Your task to perform on an android device: delete the emails in spam in the gmail app Image 0: 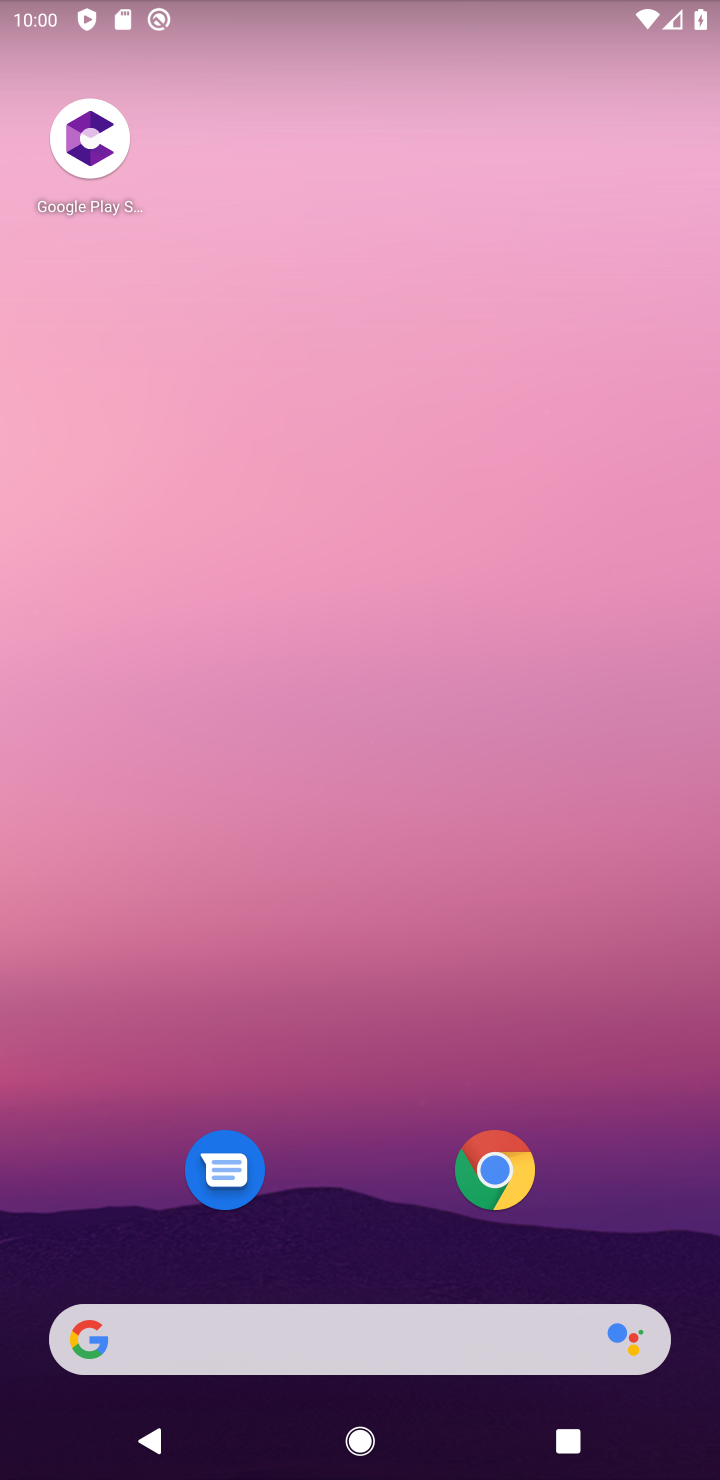
Step 0: press home button
Your task to perform on an android device: delete the emails in spam in the gmail app Image 1: 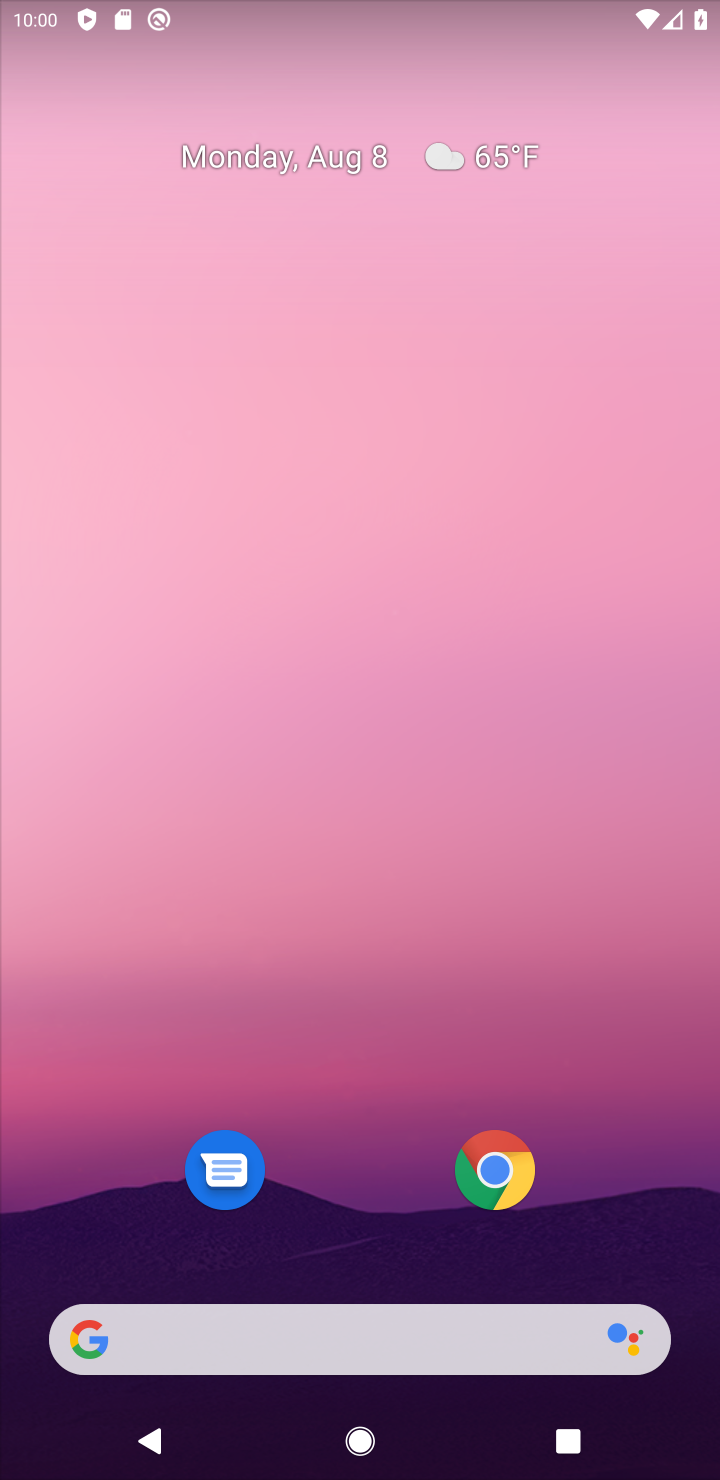
Step 1: drag from (397, 925) to (427, 97)
Your task to perform on an android device: delete the emails in spam in the gmail app Image 2: 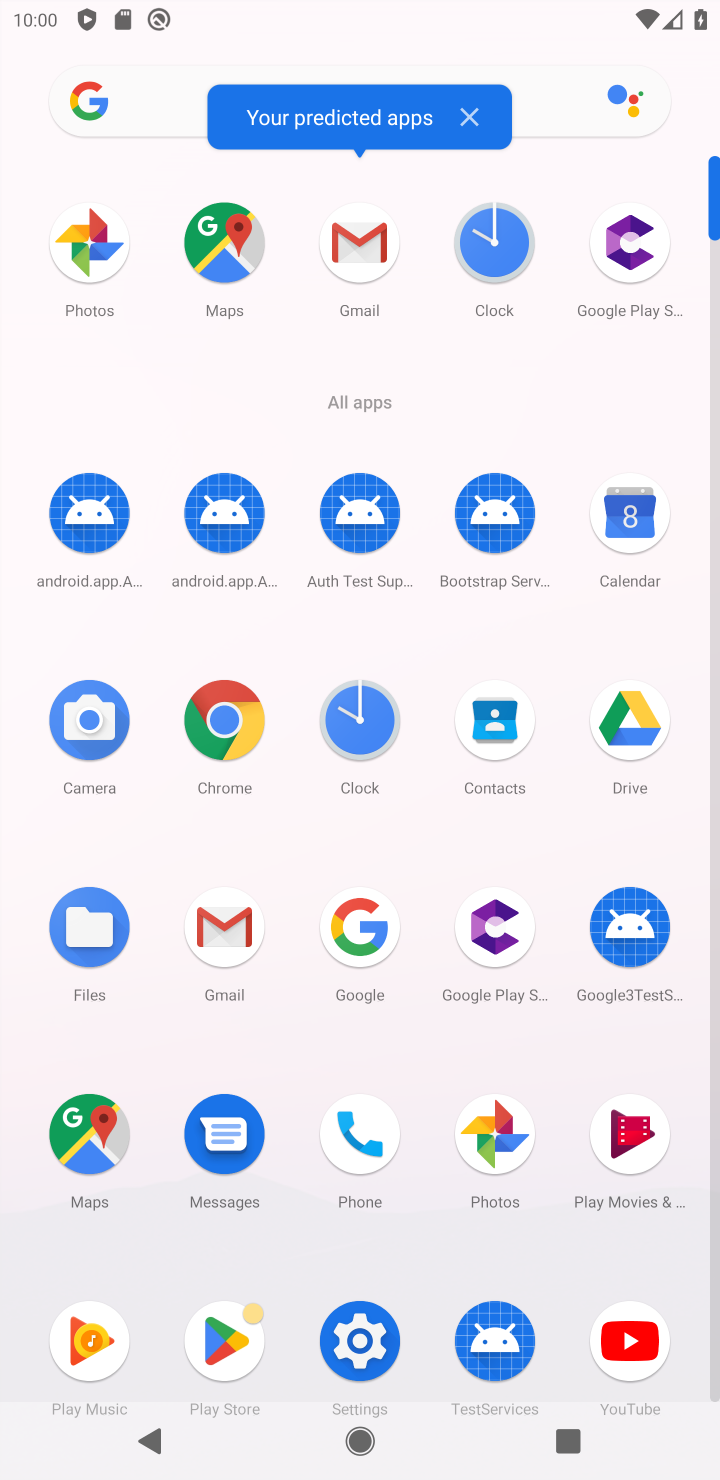
Step 2: click (368, 240)
Your task to perform on an android device: delete the emails in spam in the gmail app Image 3: 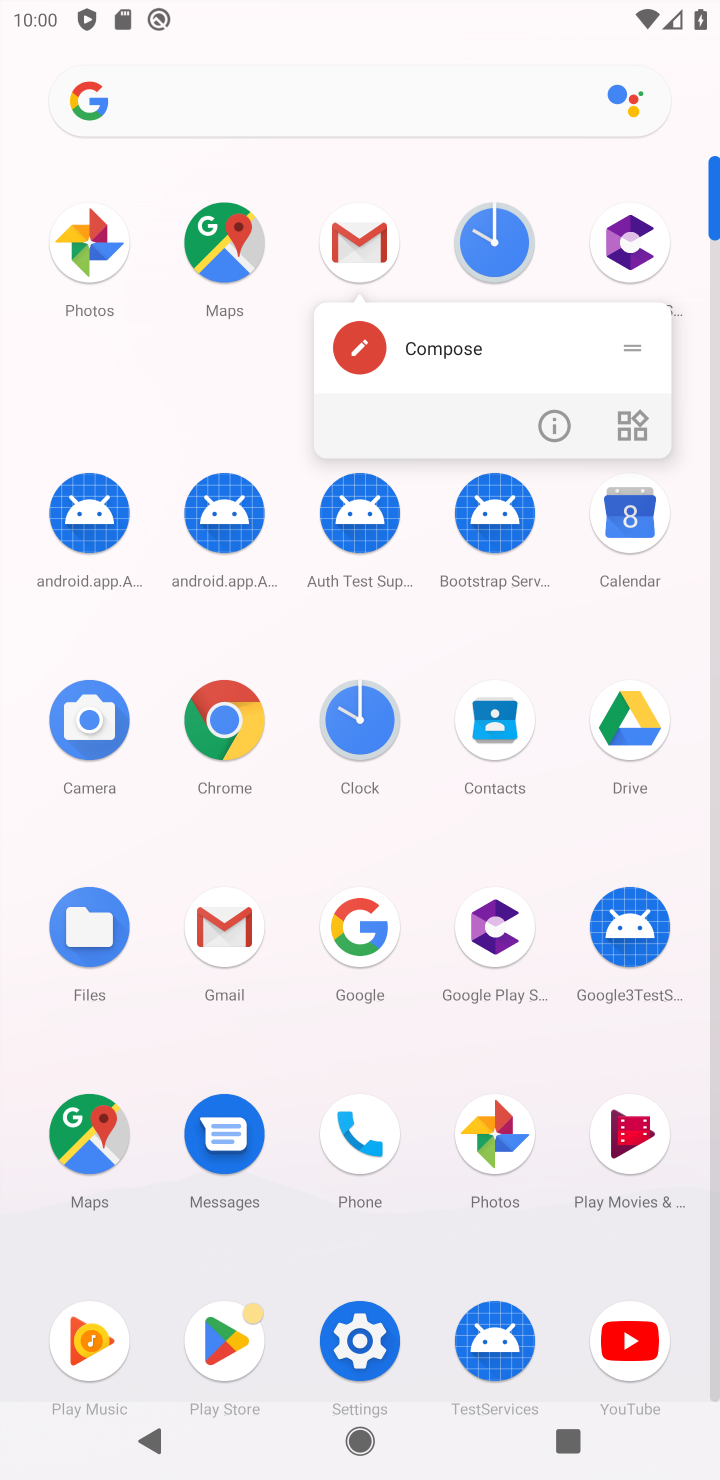
Step 3: click (366, 230)
Your task to perform on an android device: delete the emails in spam in the gmail app Image 4: 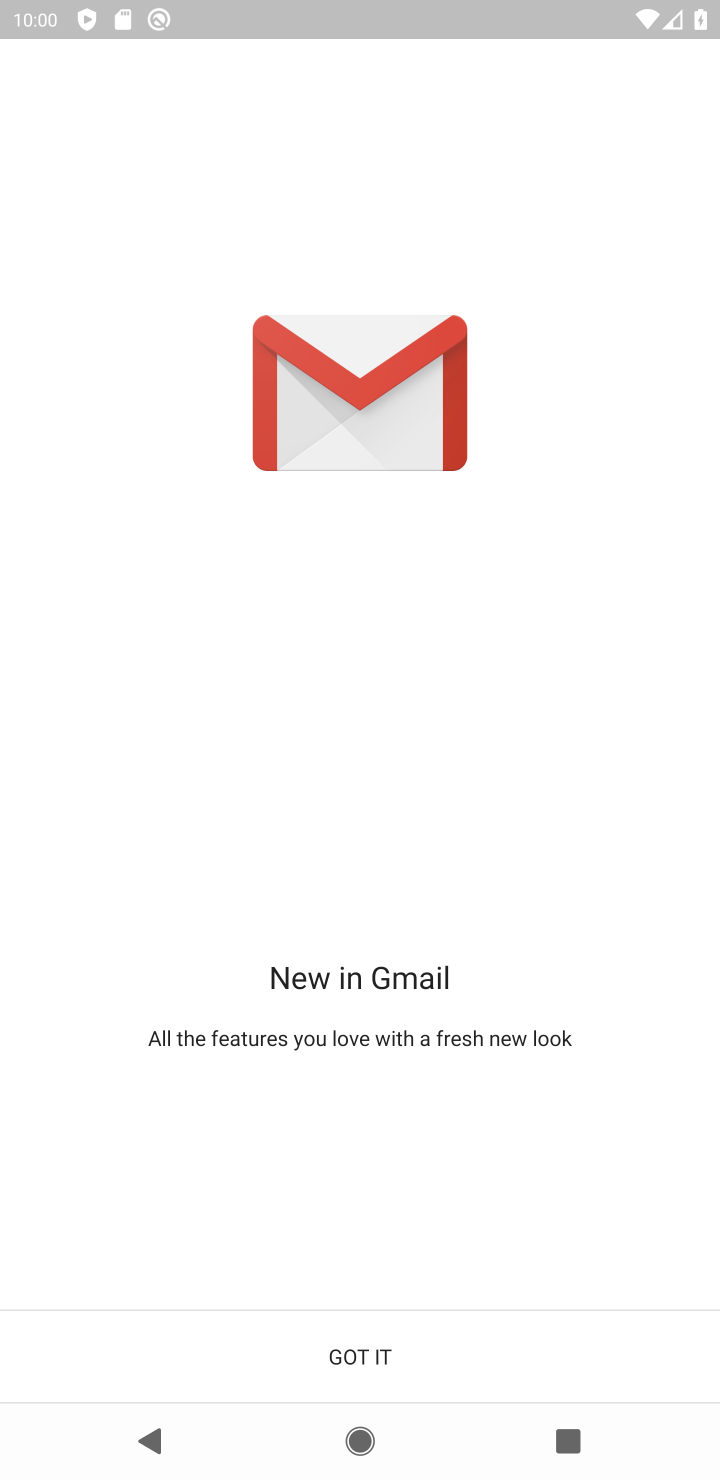
Step 4: click (363, 1350)
Your task to perform on an android device: delete the emails in spam in the gmail app Image 5: 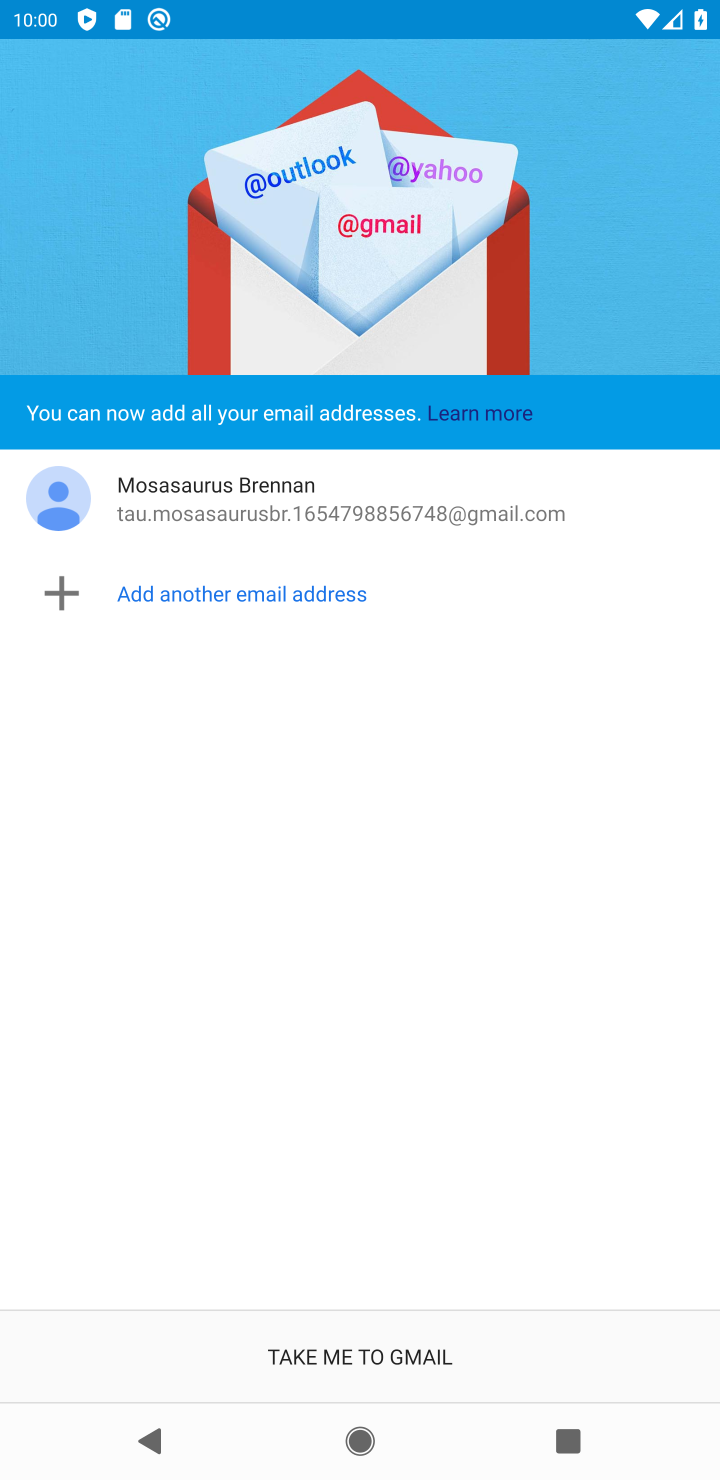
Step 5: click (401, 1344)
Your task to perform on an android device: delete the emails in spam in the gmail app Image 6: 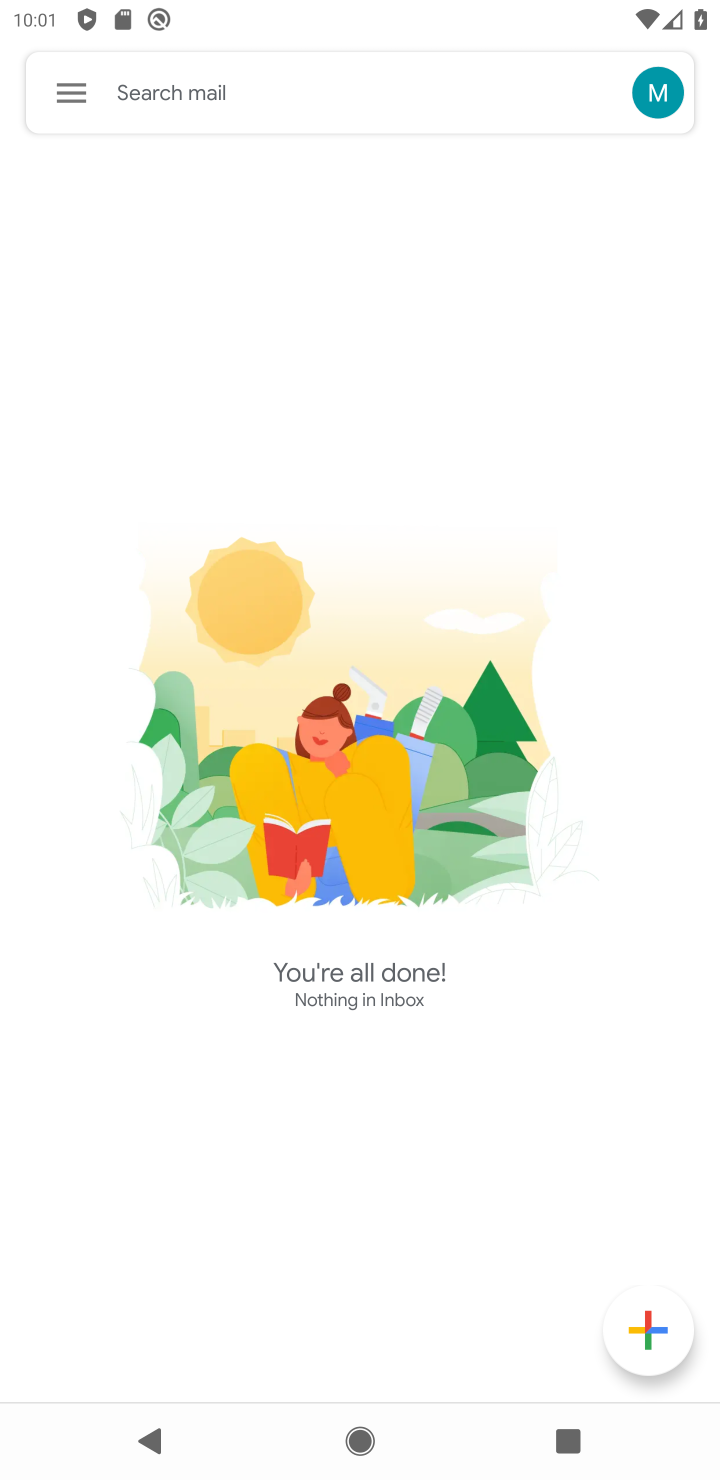
Step 6: click (81, 101)
Your task to perform on an android device: delete the emails in spam in the gmail app Image 7: 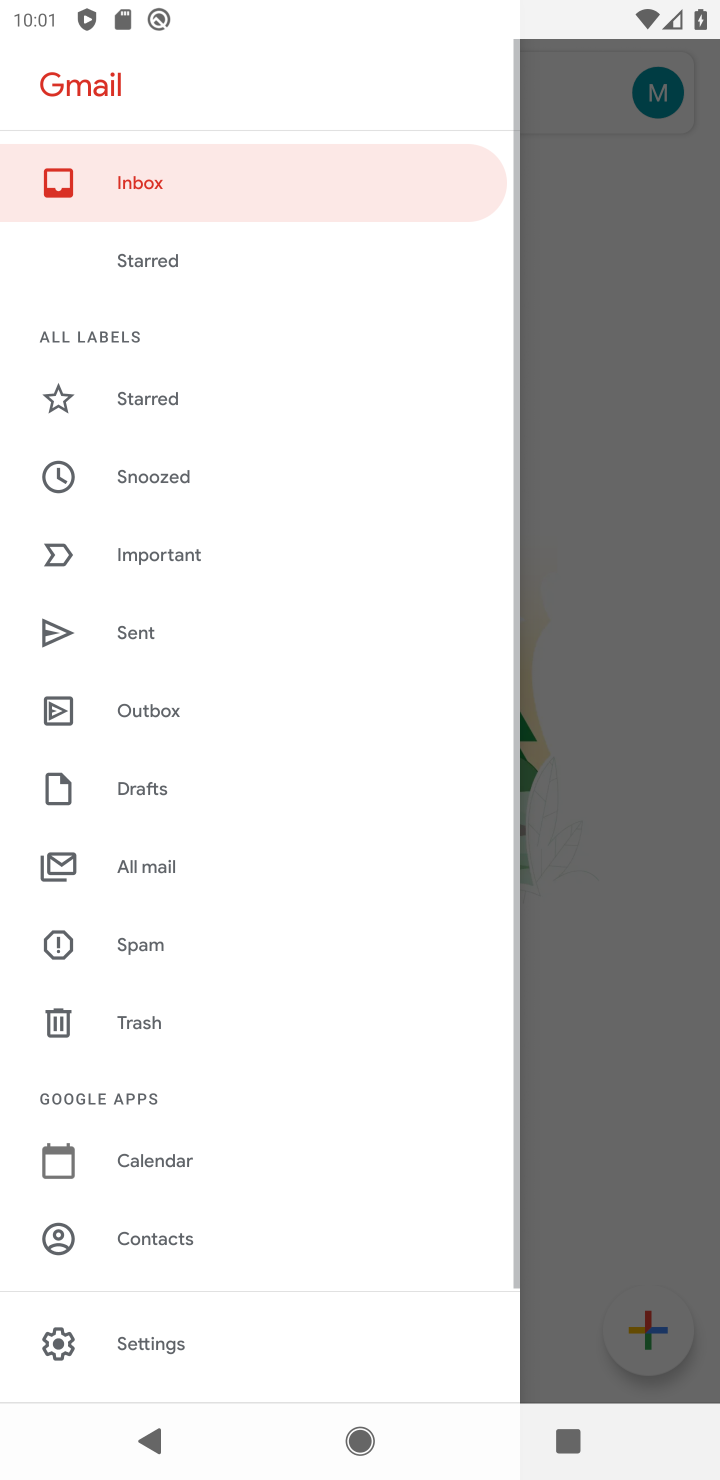
Step 7: click (162, 906)
Your task to perform on an android device: delete the emails in spam in the gmail app Image 8: 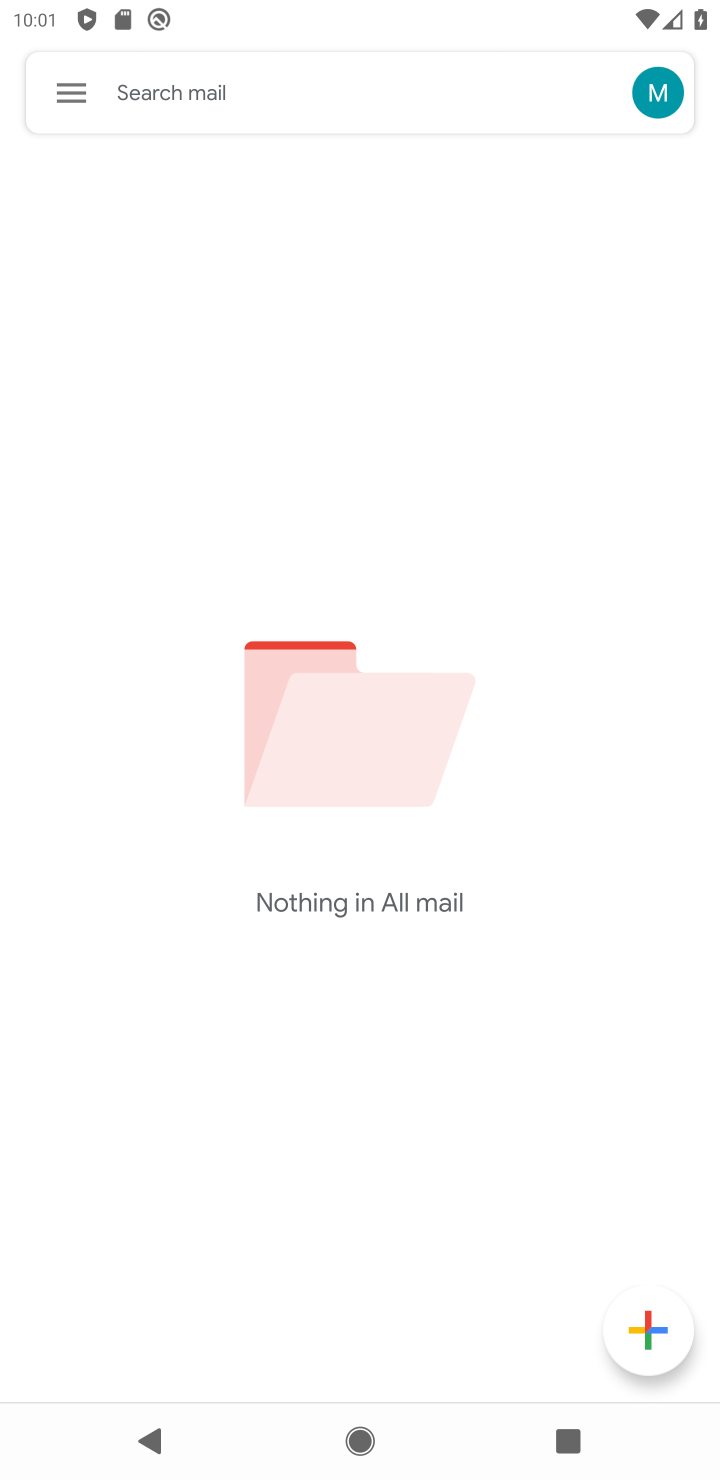
Step 8: task complete